Your task to perform on an android device: open app "Lyft - Rideshare, Bikes, Scooters & Transit" (install if not already installed) Image 0: 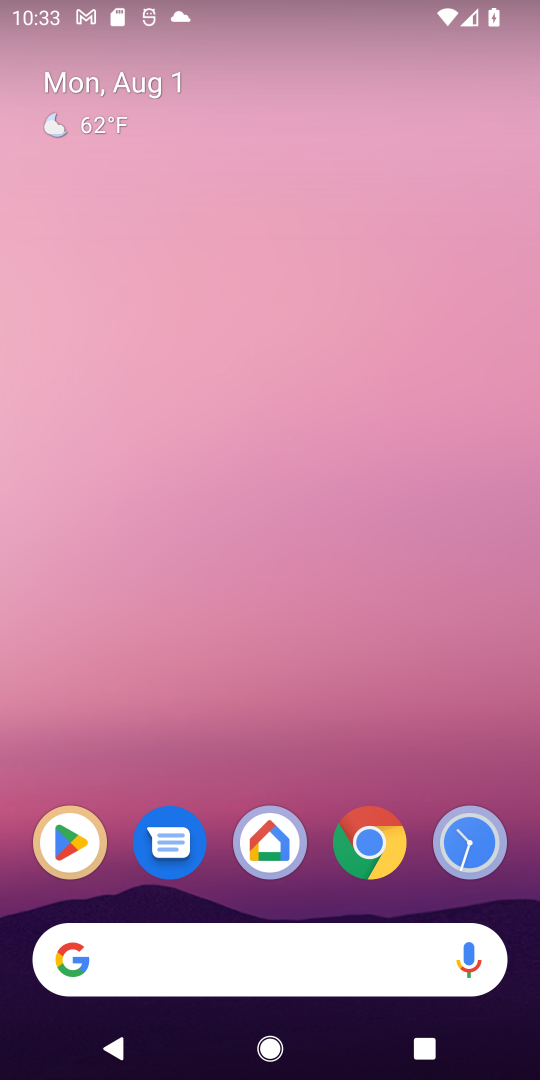
Step 0: click (67, 828)
Your task to perform on an android device: open app "Lyft - Rideshare, Bikes, Scooters & Transit" (install if not already installed) Image 1: 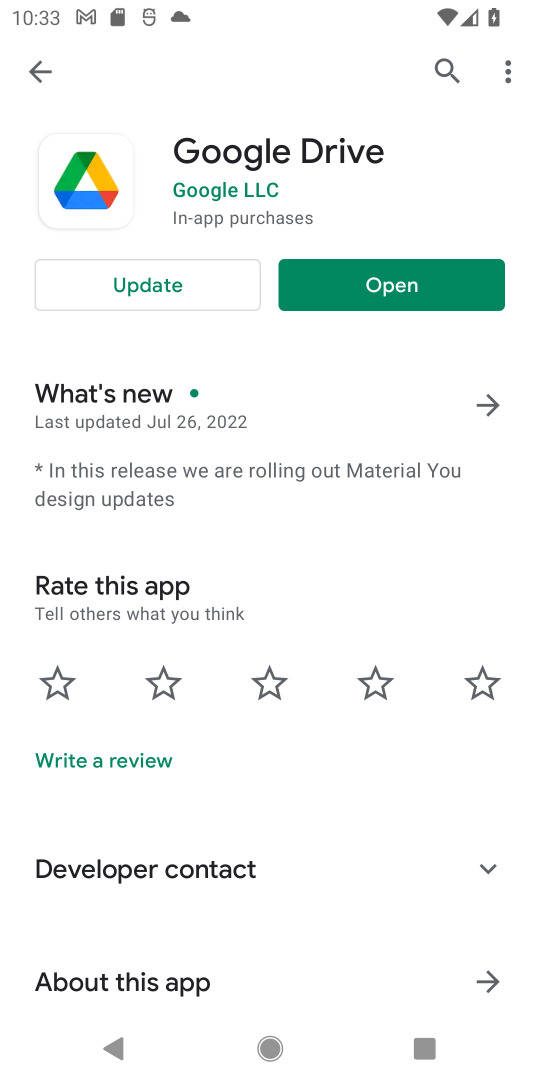
Step 1: click (449, 71)
Your task to perform on an android device: open app "Lyft - Rideshare, Bikes, Scooters & Transit" (install if not already installed) Image 2: 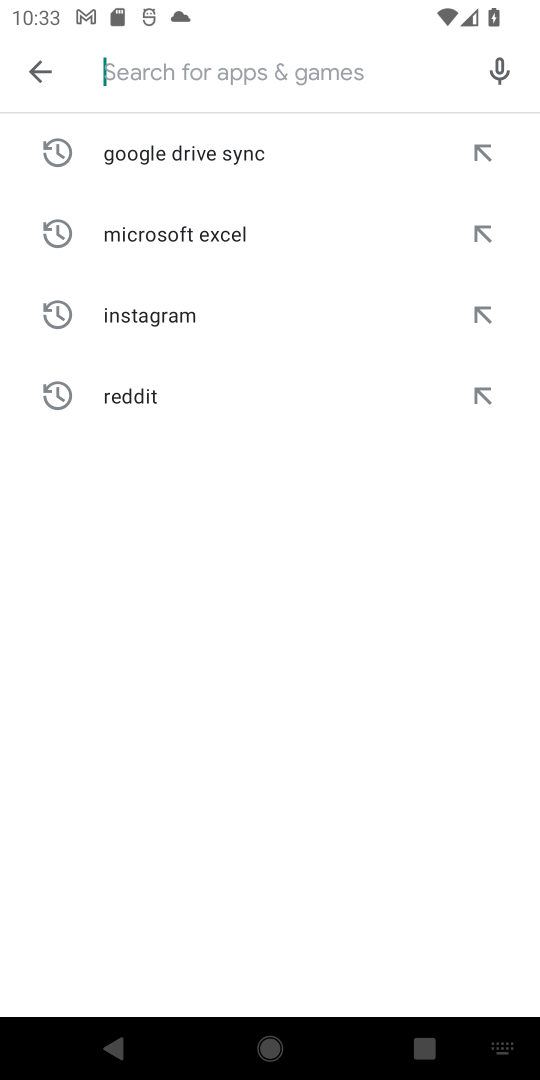
Step 2: click (239, 69)
Your task to perform on an android device: open app "Lyft - Rideshare, Bikes, Scooters & Transit" (install if not already installed) Image 3: 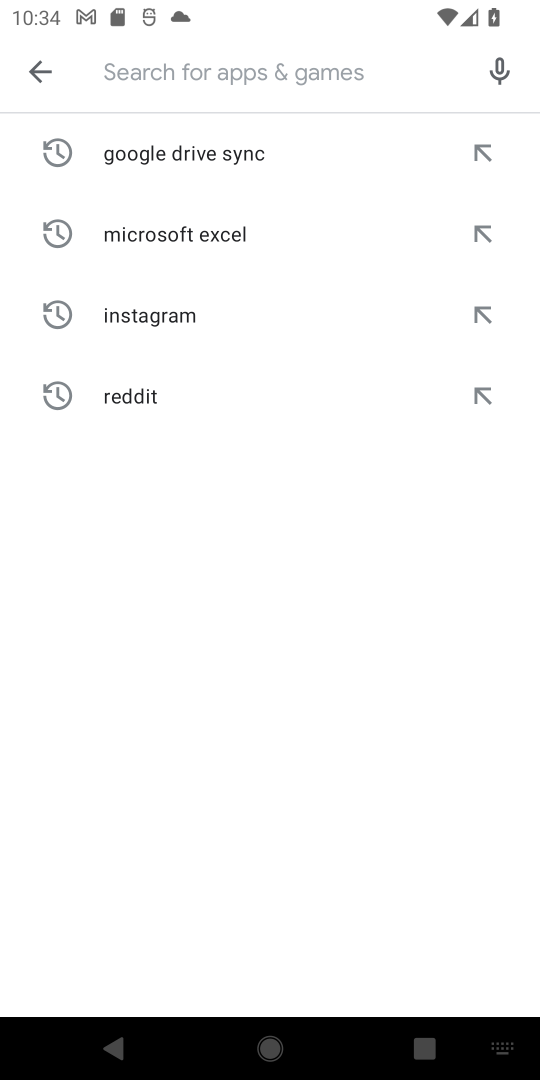
Step 3: type "lyft"
Your task to perform on an android device: open app "Lyft - Rideshare, Bikes, Scooters & Transit" (install if not already installed) Image 4: 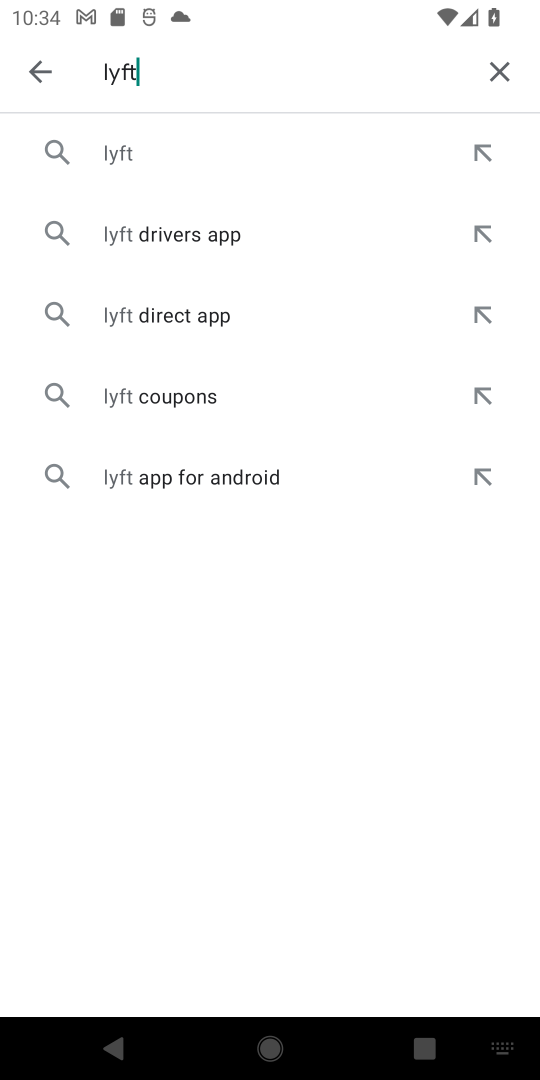
Step 4: click (102, 153)
Your task to perform on an android device: open app "Lyft - Rideshare, Bikes, Scooters & Transit" (install if not already installed) Image 5: 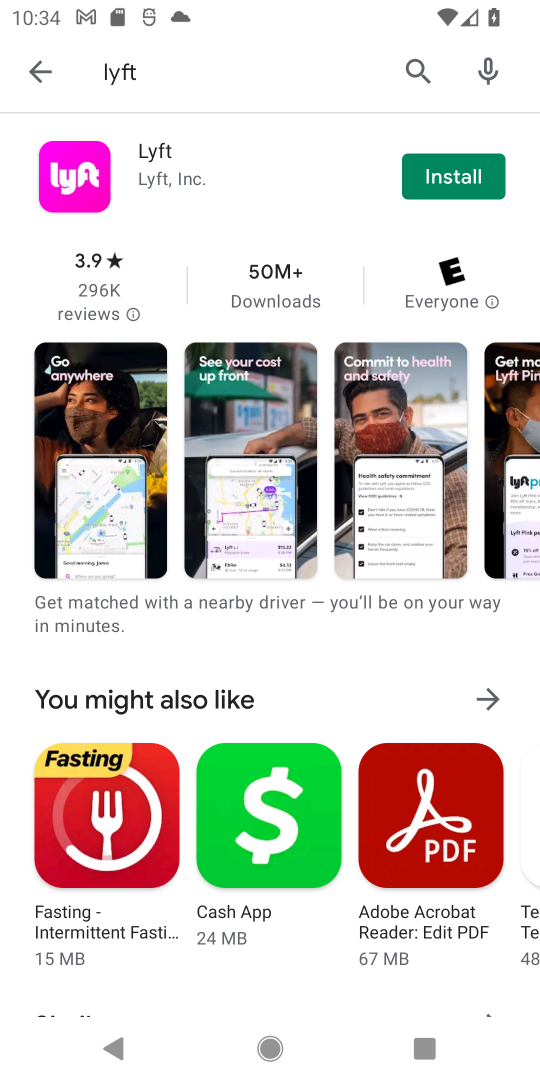
Step 5: click (461, 172)
Your task to perform on an android device: open app "Lyft - Rideshare, Bikes, Scooters & Transit" (install if not already installed) Image 6: 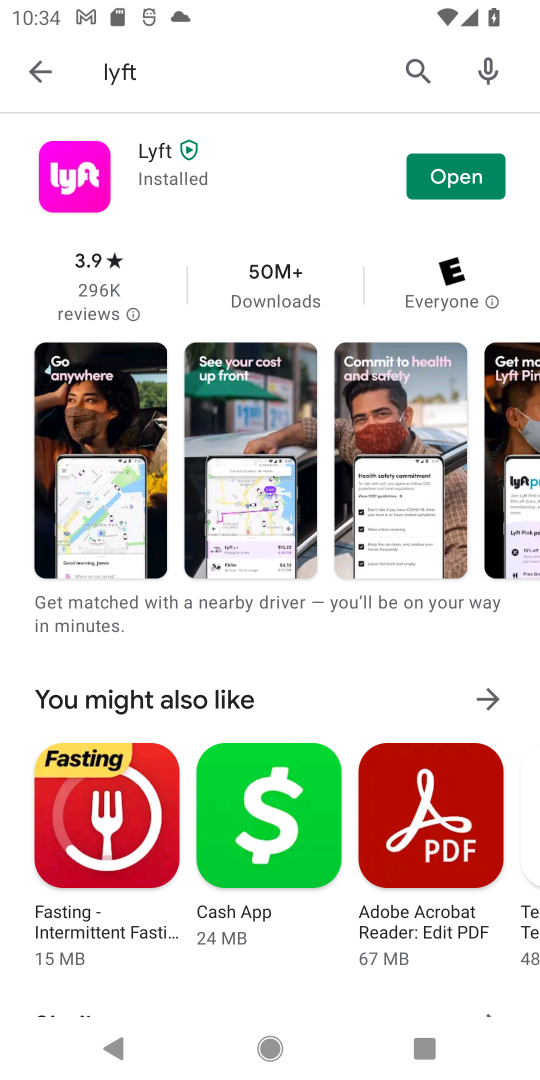
Step 6: click (435, 155)
Your task to perform on an android device: open app "Lyft - Rideshare, Bikes, Scooters & Transit" (install if not already installed) Image 7: 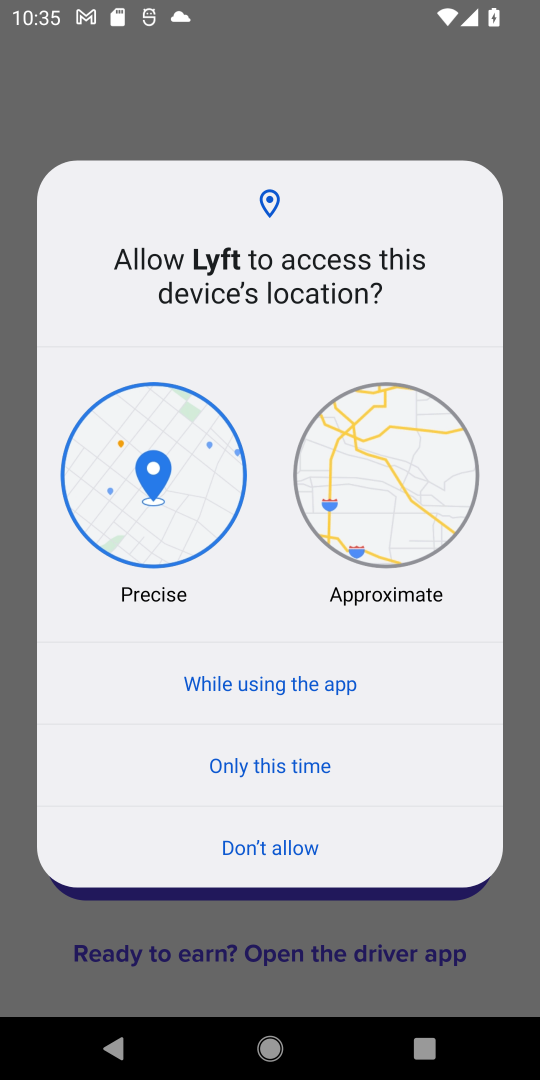
Step 7: task complete